Your task to perform on an android device: create a new album in the google photos Image 0: 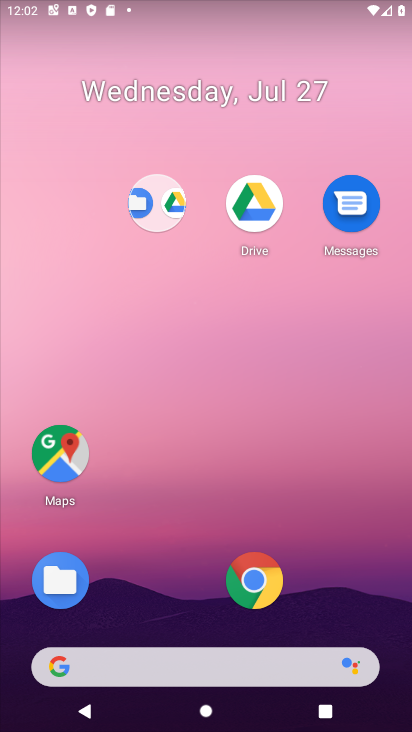
Step 0: drag from (192, 599) to (236, 0)
Your task to perform on an android device: create a new album in the google photos Image 1: 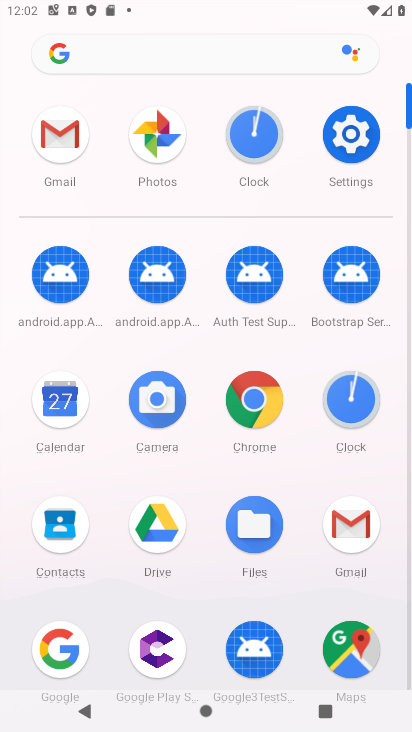
Step 1: click (136, 168)
Your task to perform on an android device: create a new album in the google photos Image 2: 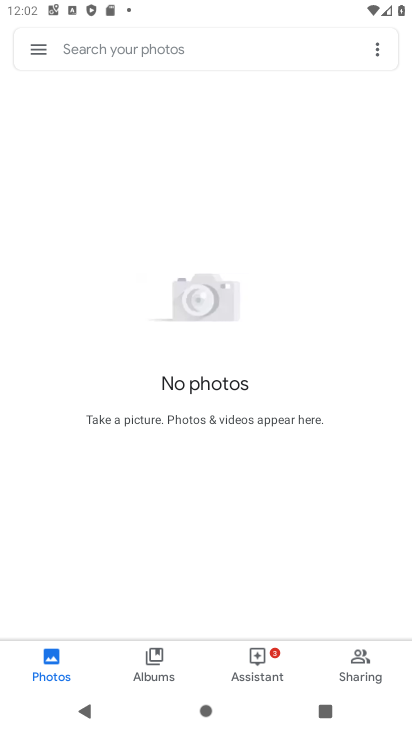
Step 2: task complete